Your task to perform on an android device: Open Chrome and go to settings Image 0: 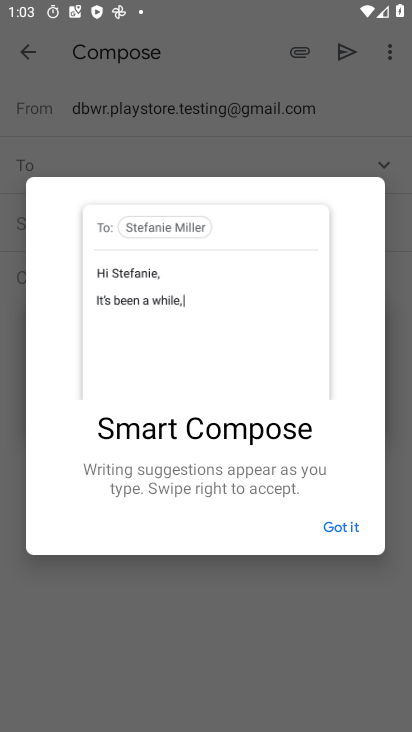
Step 0: press home button
Your task to perform on an android device: Open Chrome and go to settings Image 1: 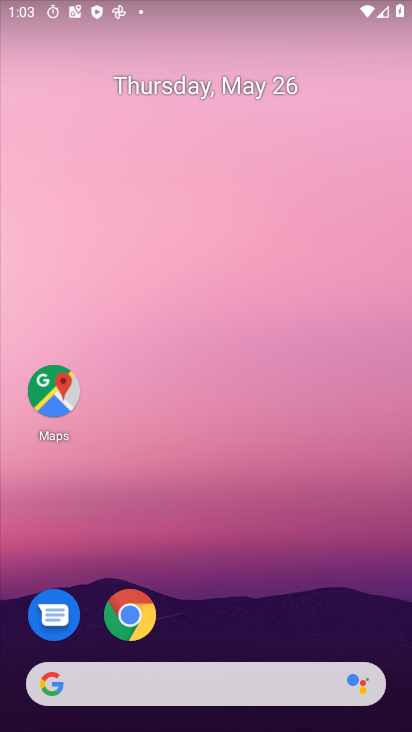
Step 1: drag from (200, 627) to (157, 214)
Your task to perform on an android device: Open Chrome and go to settings Image 2: 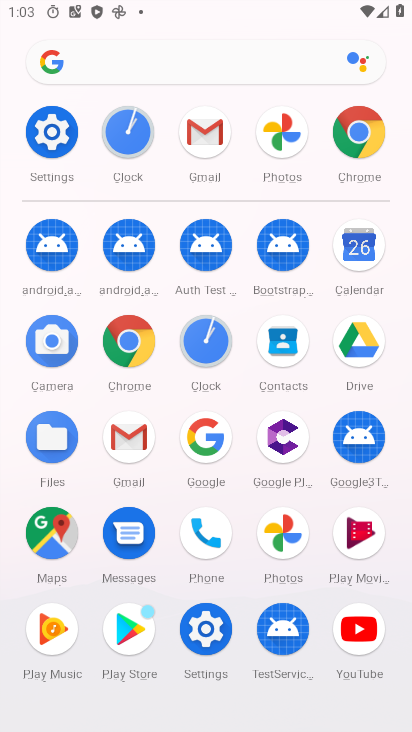
Step 2: click (376, 134)
Your task to perform on an android device: Open Chrome and go to settings Image 3: 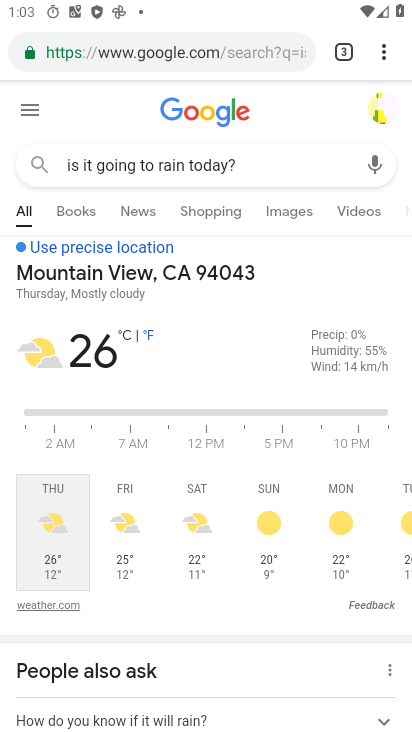
Step 3: click (374, 70)
Your task to perform on an android device: Open Chrome and go to settings Image 4: 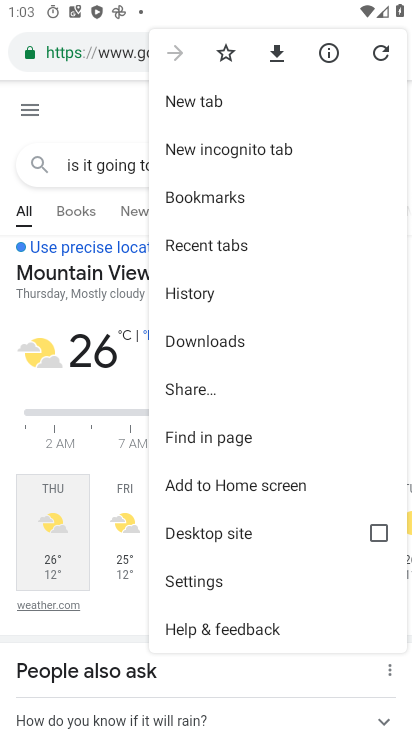
Step 4: click (238, 587)
Your task to perform on an android device: Open Chrome and go to settings Image 5: 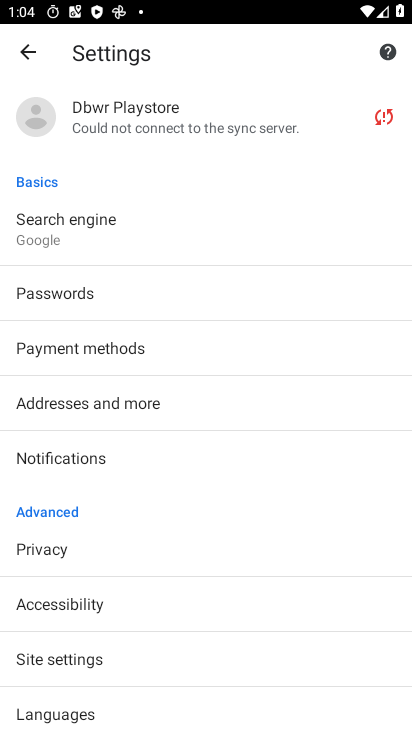
Step 5: task complete